Your task to perform on an android device: What is the recent news? Image 0: 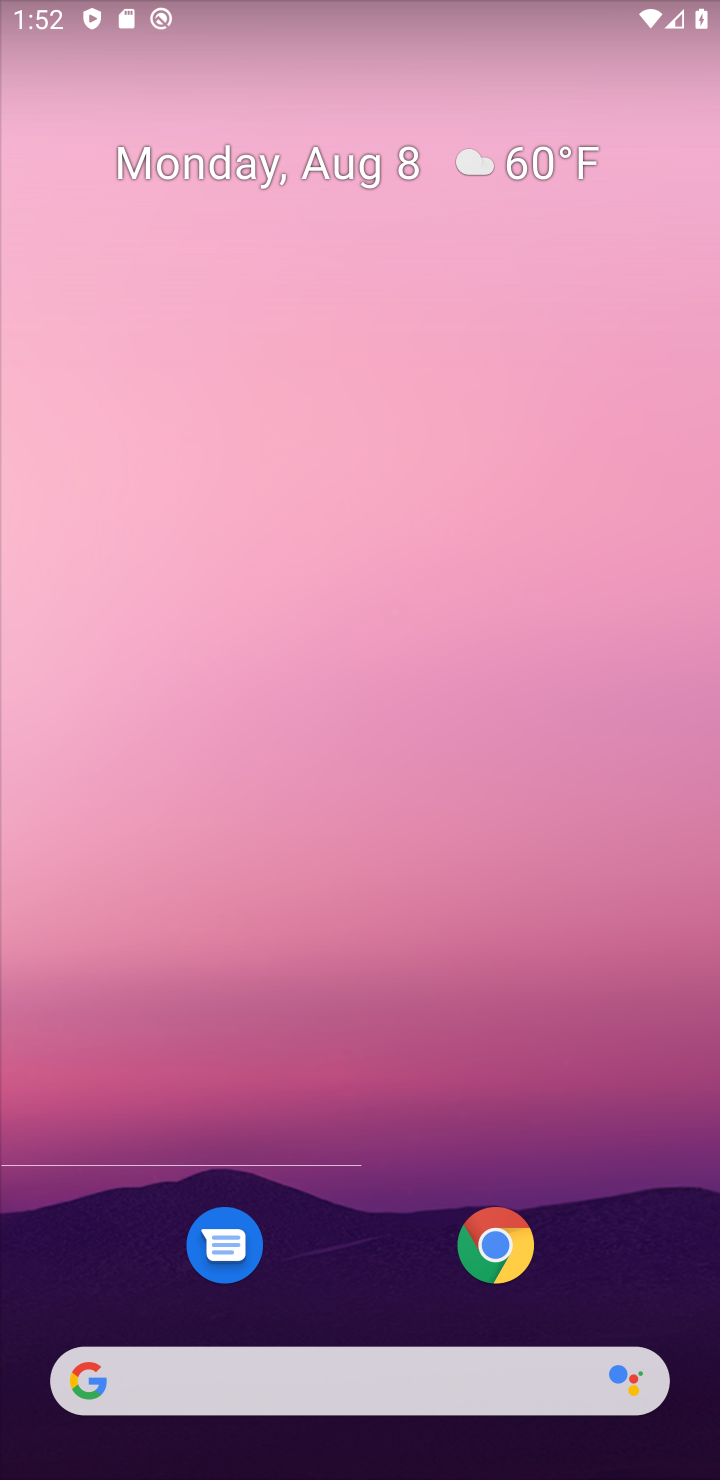
Step 0: press home button
Your task to perform on an android device: What is the recent news? Image 1: 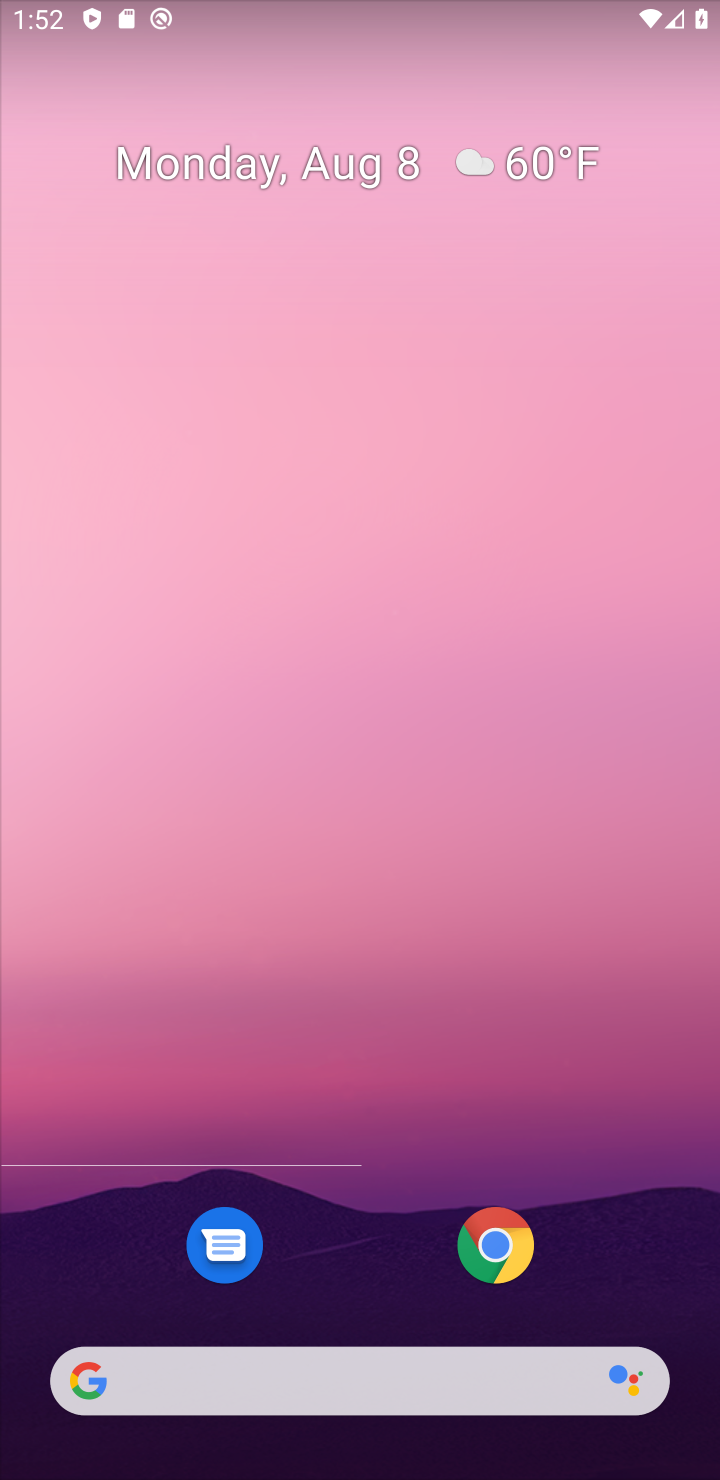
Step 1: click (395, 255)
Your task to perform on an android device: What is the recent news? Image 2: 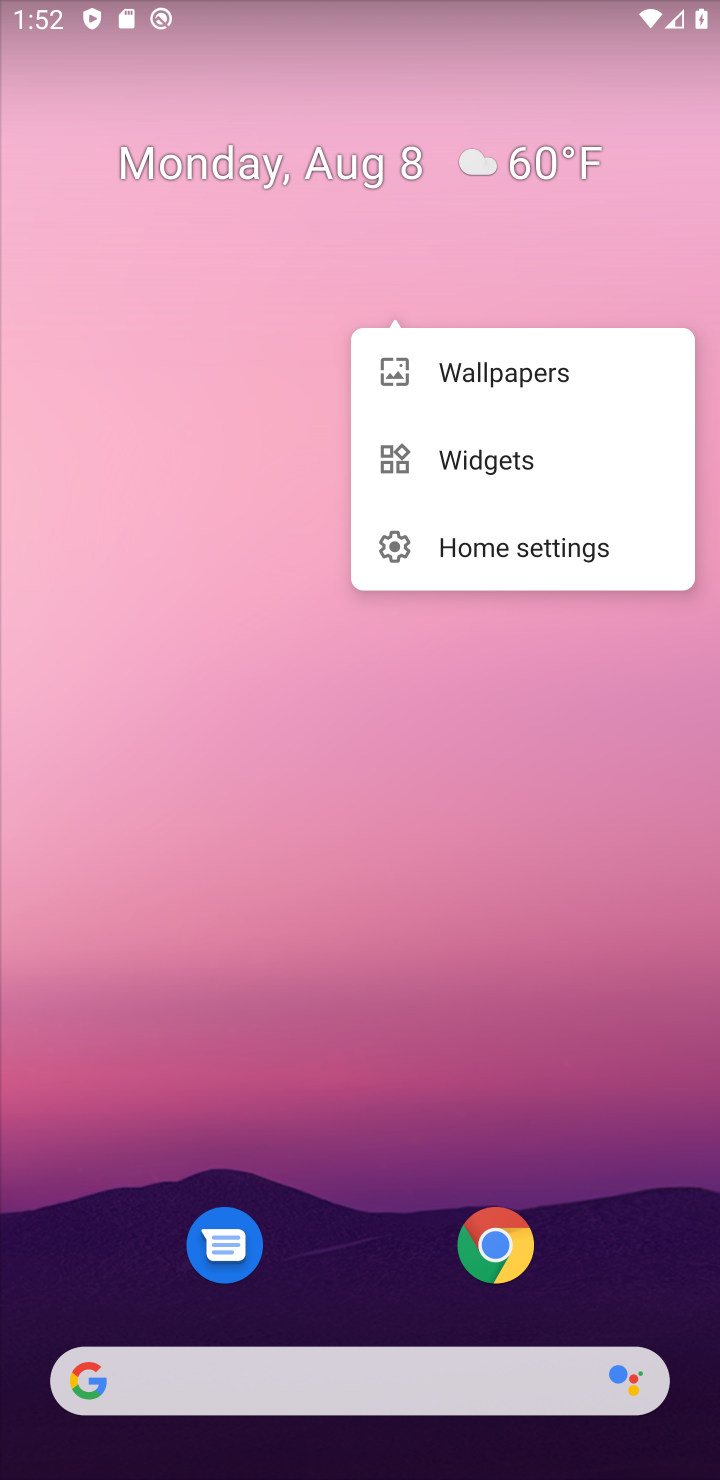
Step 2: click (393, 883)
Your task to perform on an android device: What is the recent news? Image 3: 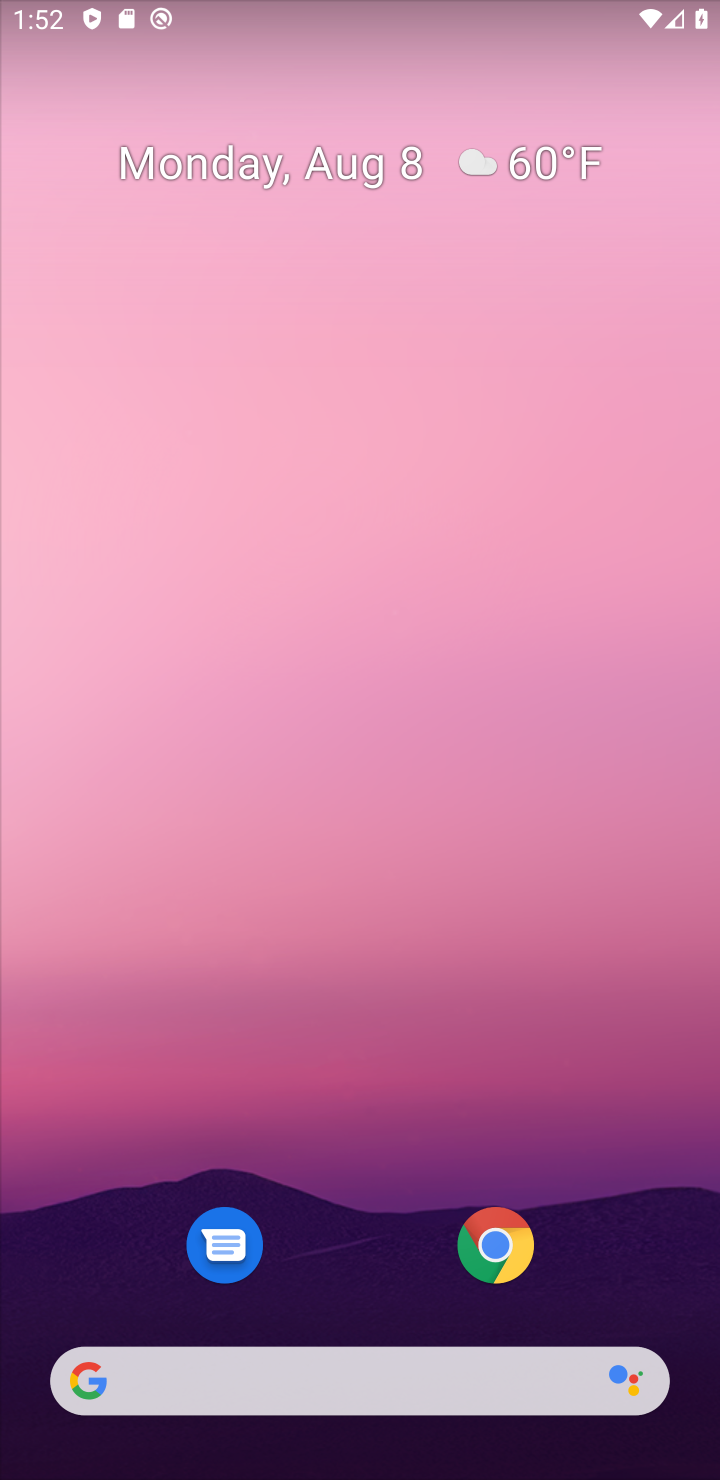
Step 3: task complete